Your task to perform on an android device: turn notification dots on Image 0: 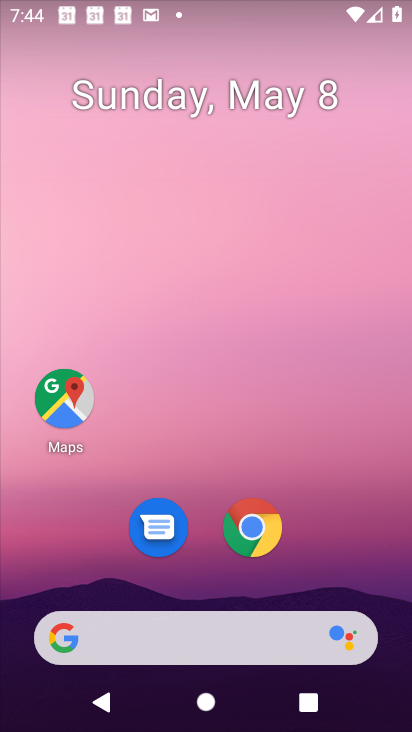
Step 0: drag from (297, 584) to (310, 4)
Your task to perform on an android device: turn notification dots on Image 1: 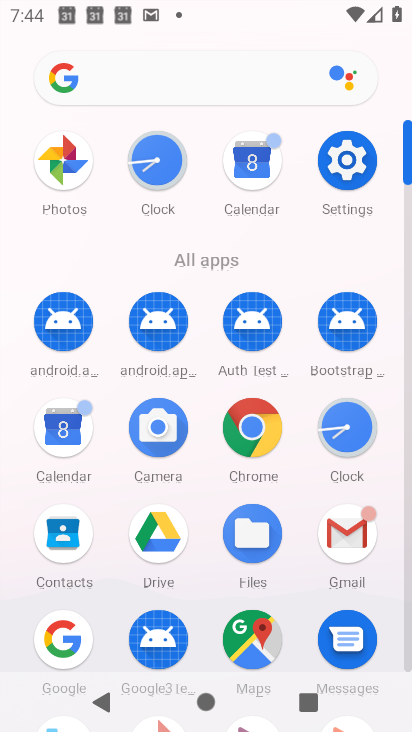
Step 1: click (348, 164)
Your task to perform on an android device: turn notification dots on Image 2: 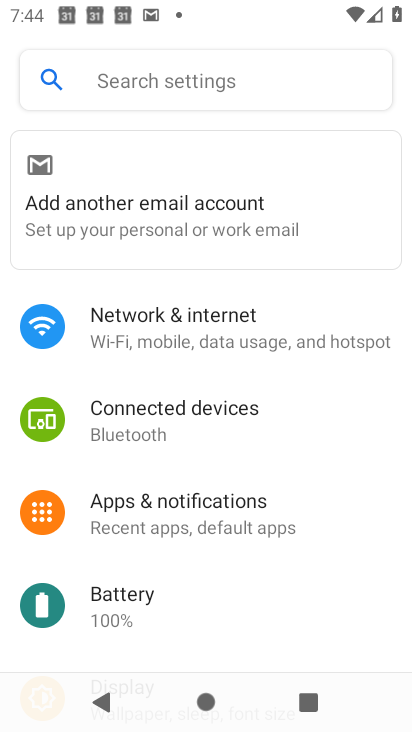
Step 2: click (280, 507)
Your task to perform on an android device: turn notification dots on Image 3: 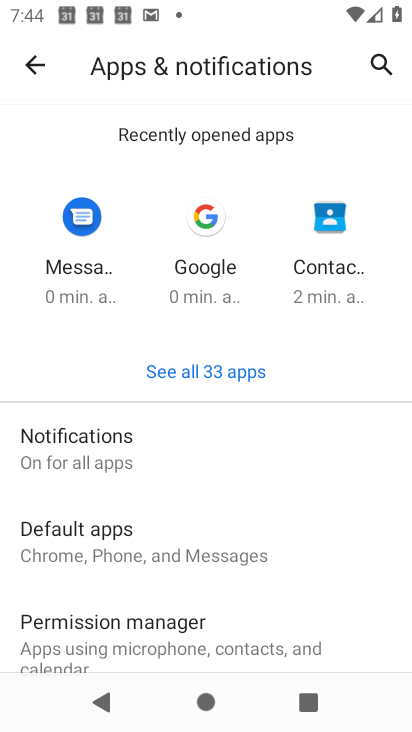
Step 3: click (187, 455)
Your task to perform on an android device: turn notification dots on Image 4: 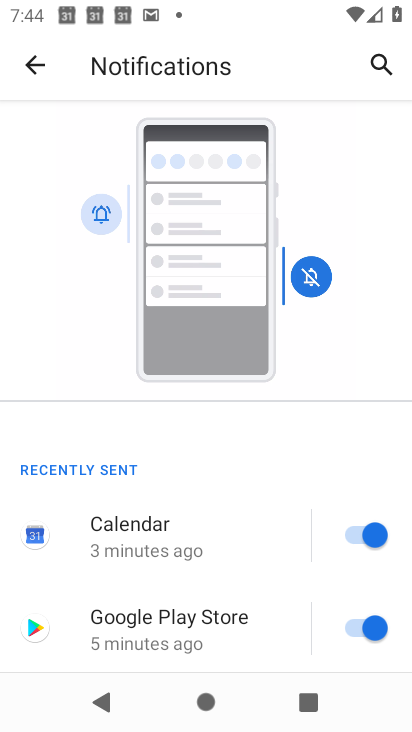
Step 4: drag from (242, 601) to (217, 149)
Your task to perform on an android device: turn notification dots on Image 5: 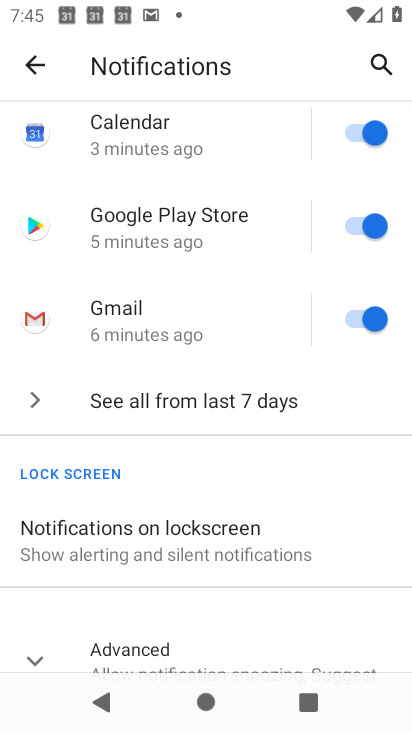
Step 5: drag from (187, 586) to (239, 215)
Your task to perform on an android device: turn notification dots on Image 6: 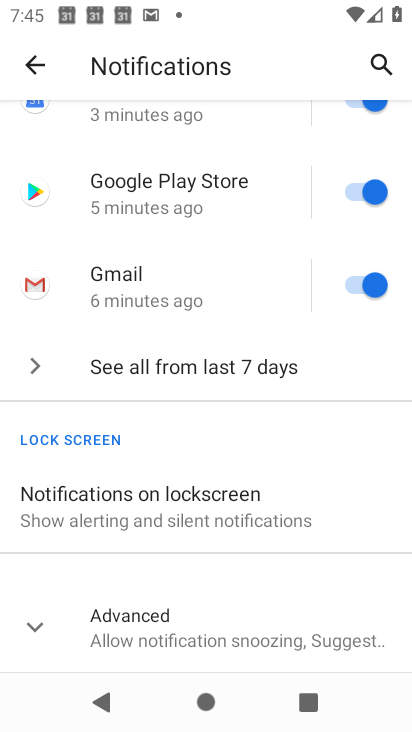
Step 6: click (241, 637)
Your task to perform on an android device: turn notification dots on Image 7: 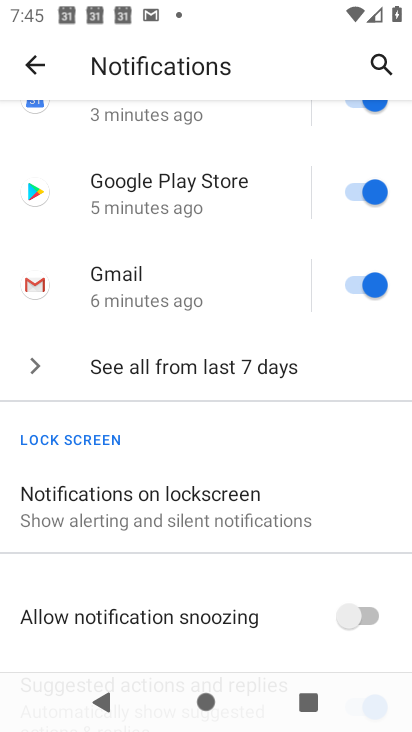
Step 7: task complete